Your task to perform on an android device: turn off sleep mode Image 0: 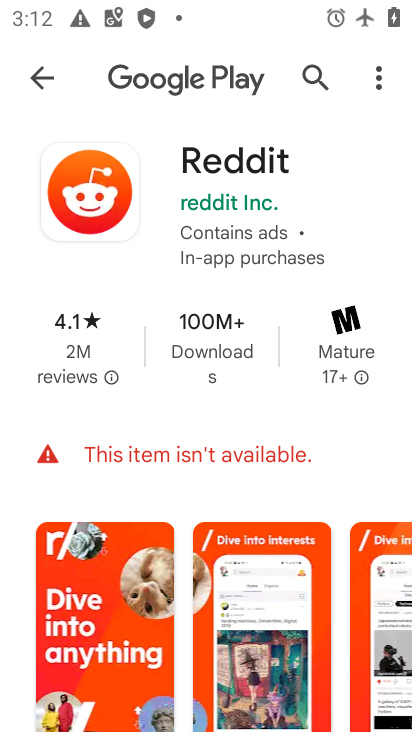
Step 0: press home button
Your task to perform on an android device: turn off sleep mode Image 1: 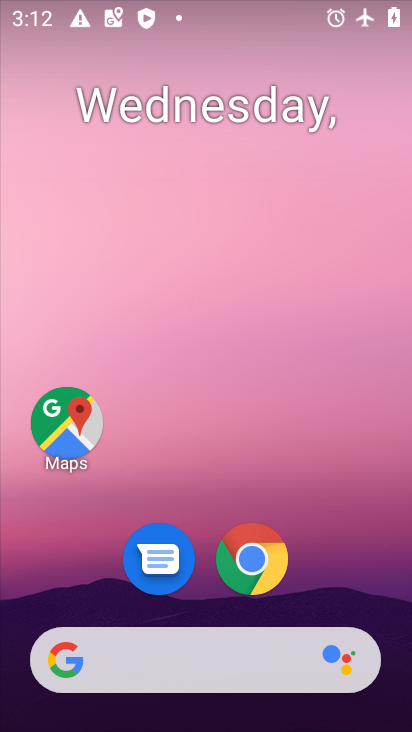
Step 1: drag from (219, 598) to (242, 159)
Your task to perform on an android device: turn off sleep mode Image 2: 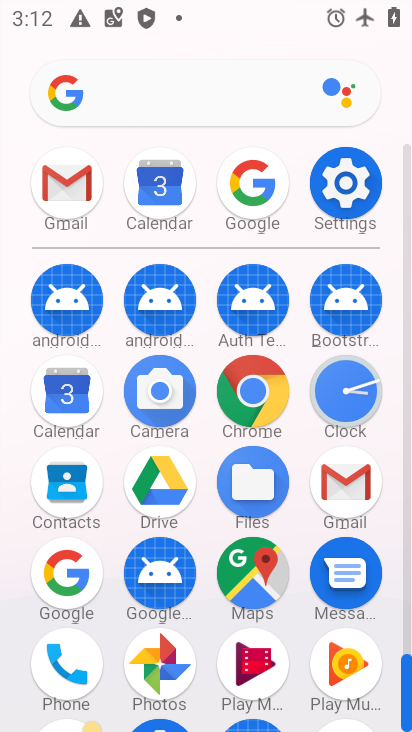
Step 2: click (357, 174)
Your task to perform on an android device: turn off sleep mode Image 3: 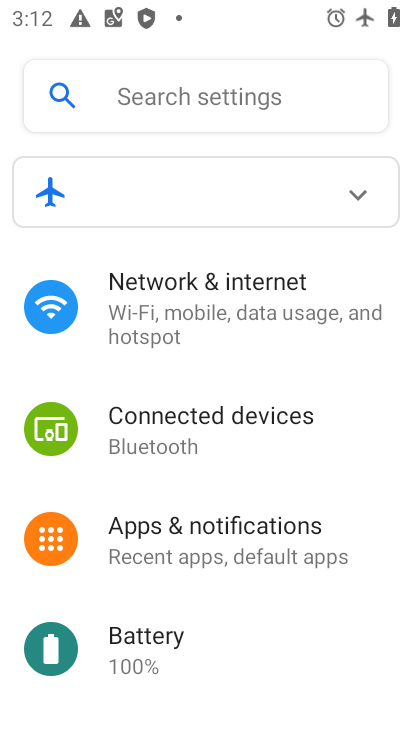
Step 3: drag from (261, 650) to (254, 387)
Your task to perform on an android device: turn off sleep mode Image 4: 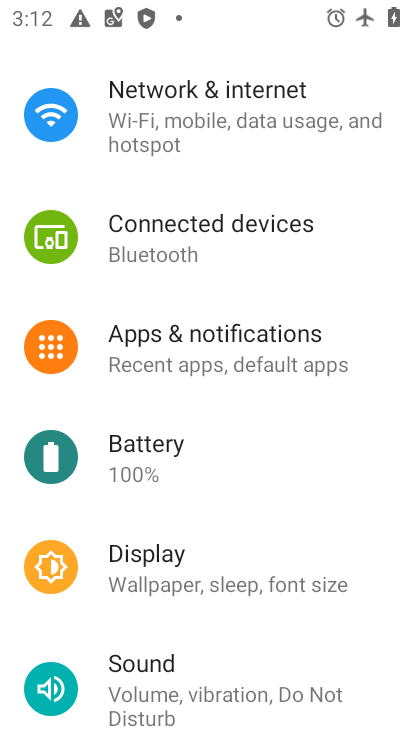
Step 4: click (215, 583)
Your task to perform on an android device: turn off sleep mode Image 5: 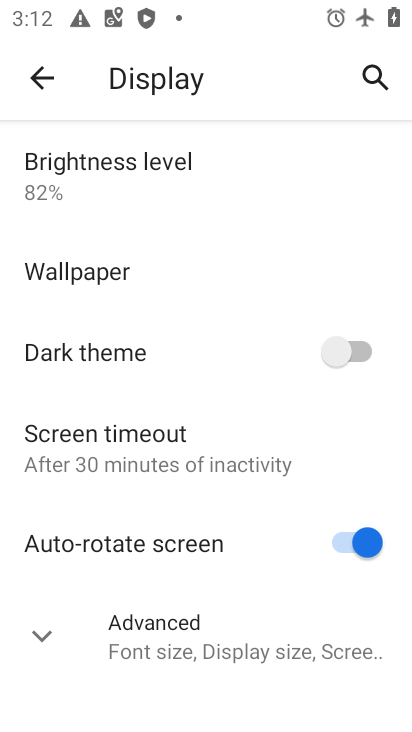
Step 5: task complete